Your task to perform on an android device: Search for "logitech g pro" on bestbuy, select the first entry, and add it to the cart. Image 0: 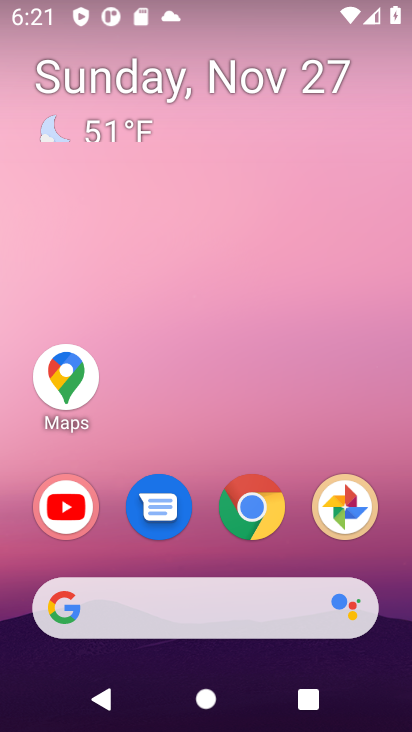
Step 0: click (254, 509)
Your task to perform on an android device: Search for "logitech g pro" on bestbuy, select the first entry, and add it to the cart. Image 1: 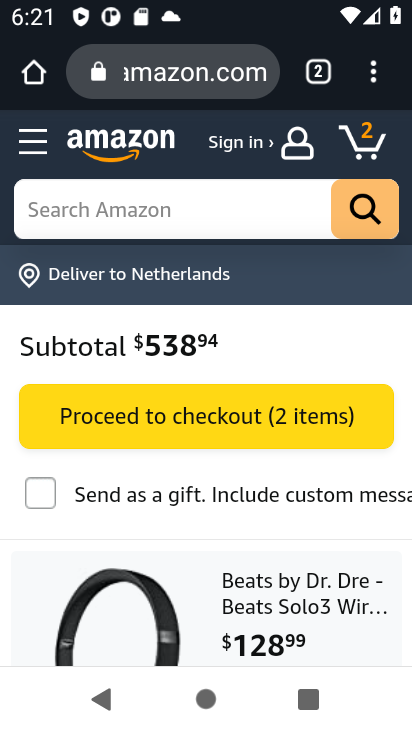
Step 1: click (203, 73)
Your task to perform on an android device: Search for "logitech g pro" on bestbuy, select the first entry, and add it to the cart. Image 2: 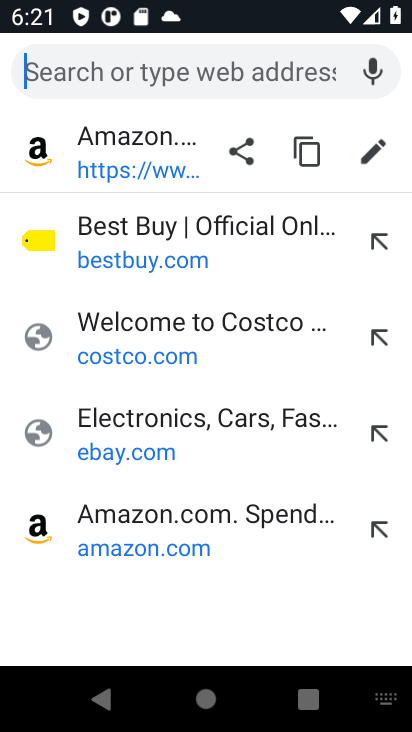
Step 2: type "bestbuy"
Your task to perform on an android device: Search for "logitech g pro" on bestbuy, select the first entry, and add it to the cart. Image 3: 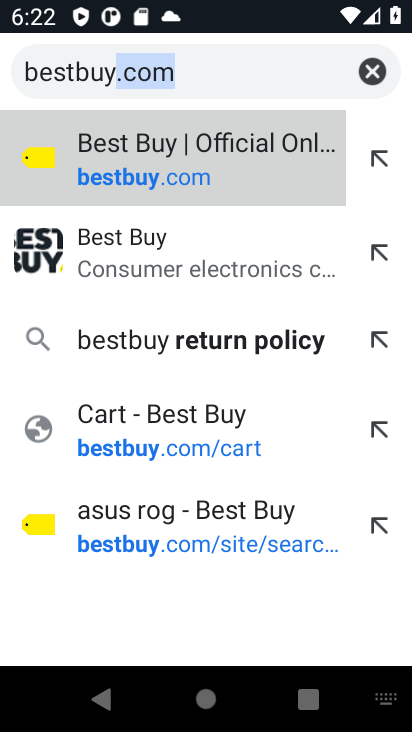
Step 3: click (142, 195)
Your task to perform on an android device: Search for "logitech g pro" on bestbuy, select the first entry, and add it to the cart. Image 4: 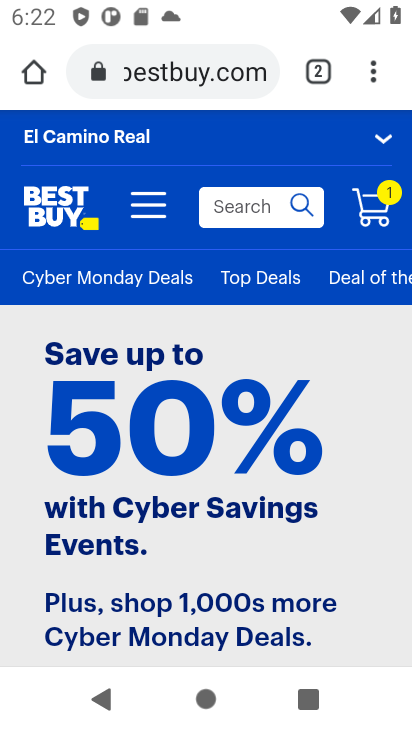
Step 4: click (237, 207)
Your task to perform on an android device: Search for "logitech g pro" on bestbuy, select the first entry, and add it to the cart. Image 5: 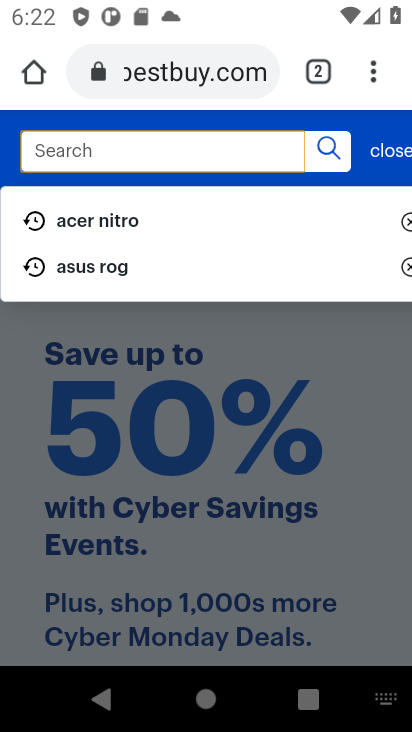
Step 5: type "logitech g pro"
Your task to perform on an android device: Search for "logitech g pro" on bestbuy, select the first entry, and add it to the cart. Image 6: 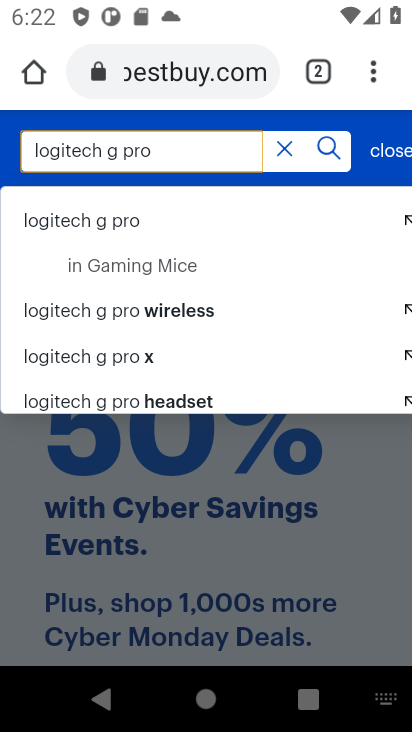
Step 6: click (324, 151)
Your task to perform on an android device: Search for "logitech g pro" on bestbuy, select the first entry, and add it to the cart. Image 7: 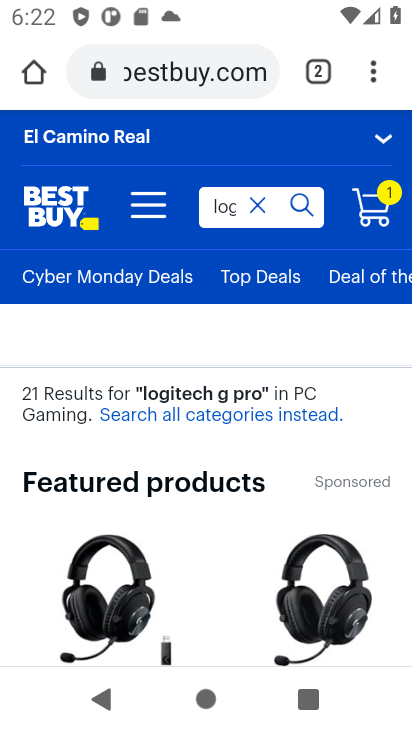
Step 7: drag from (207, 524) to (206, 344)
Your task to perform on an android device: Search for "logitech g pro" on bestbuy, select the first entry, and add it to the cart. Image 8: 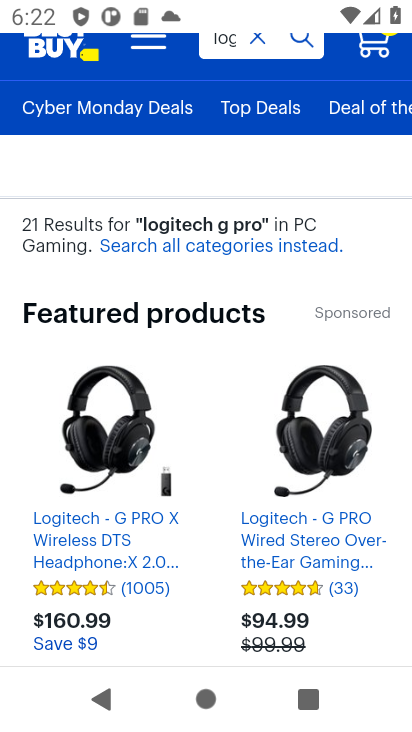
Step 8: click (108, 459)
Your task to perform on an android device: Search for "logitech g pro" on bestbuy, select the first entry, and add it to the cart. Image 9: 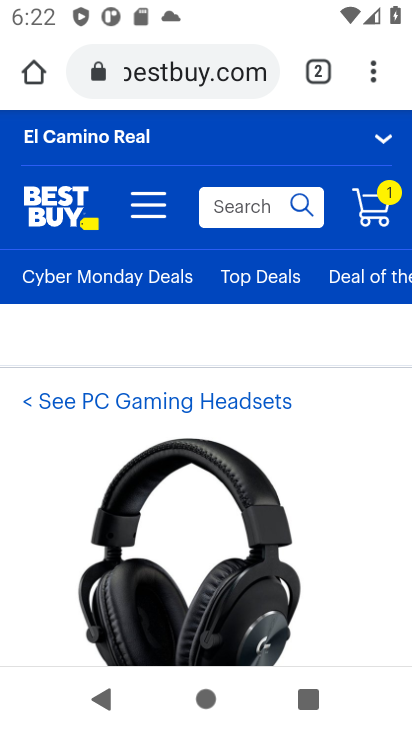
Step 9: drag from (248, 552) to (251, 312)
Your task to perform on an android device: Search for "logitech g pro" on bestbuy, select the first entry, and add it to the cart. Image 10: 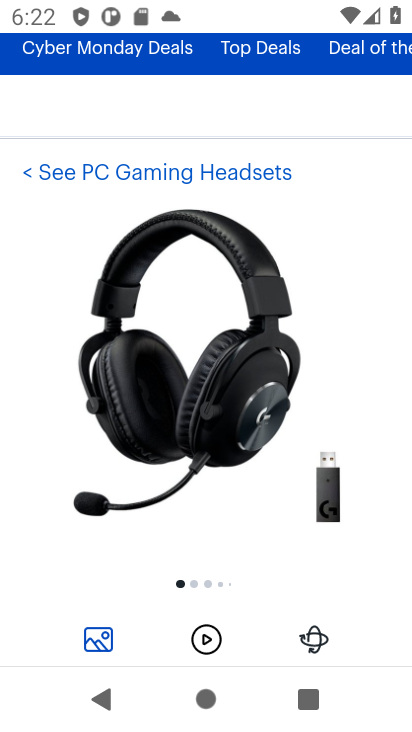
Step 10: drag from (245, 553) to (255, 229)
Your task to perform on an android device: Search for "logitech g pro" on bestbuy, select the first entry, and add it to the cart. Image 11: 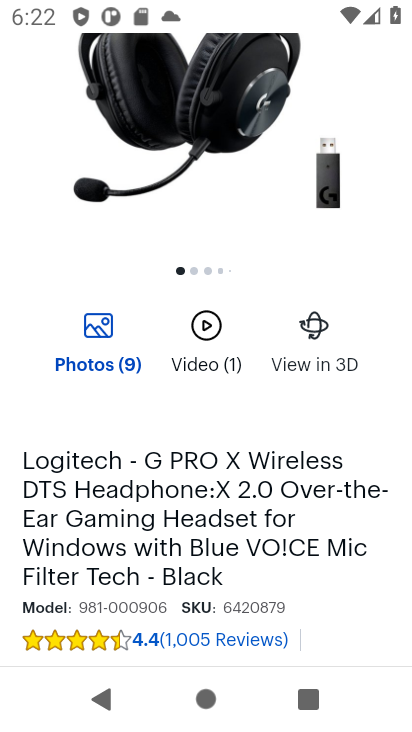
Step 11: drag from (242, 582) to (235, 304)
Your task to perform on an android device: Search for "logitech g pro" on bestbuy, select the first entry, and add it to the cart. Image 12: 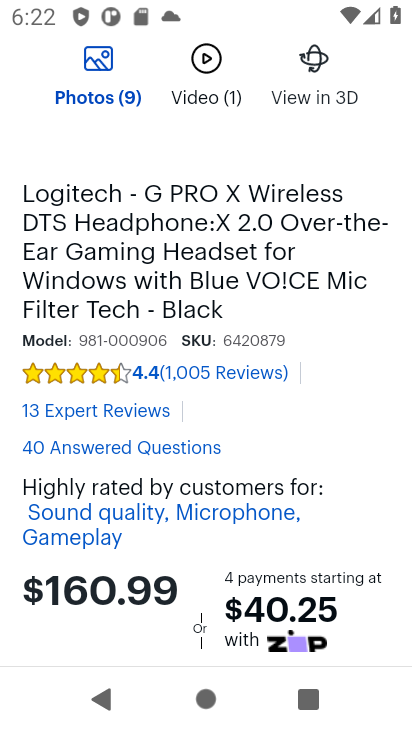
Step 12: drag from (200, 572) to (215, 243)
Your task to perform on an android device: Search for "logitech g pro" on bestbuy, select the first entry, and add it to the cart. Image 13: 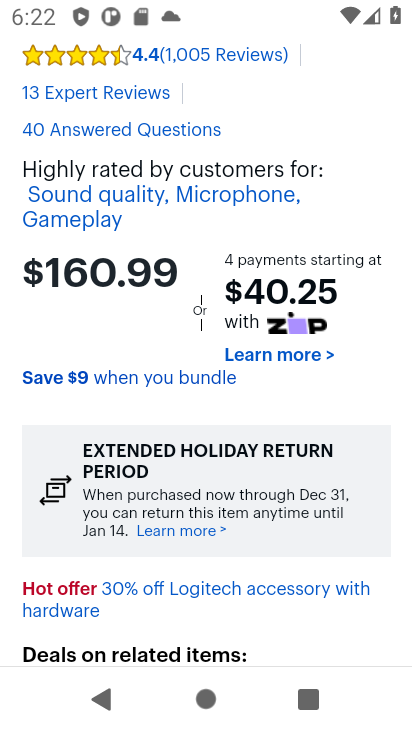
Step 13: drag from (182, 597) to (199, 252)
Your task to perform on an android device: Search for "logitech g pro" on bestbuy, select the first entry, and add it to the cart. Image 14: 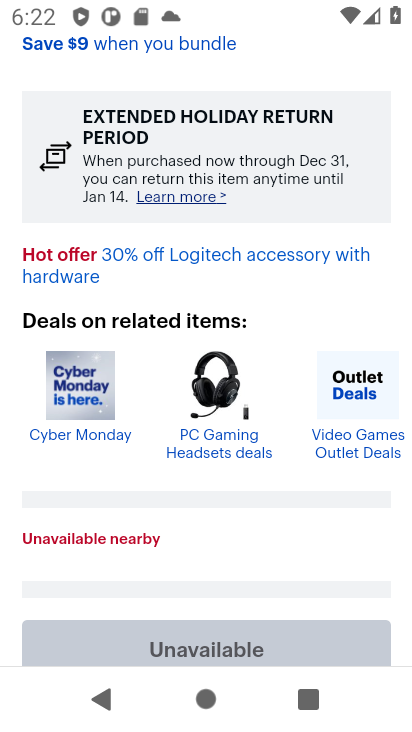
Step 14: drag from (215, 552) to (207, 623)
Your task to perform on an android device: Search for "logitech g pro" on bestbuy, select the first entry, and add it to the cart. Image 15: 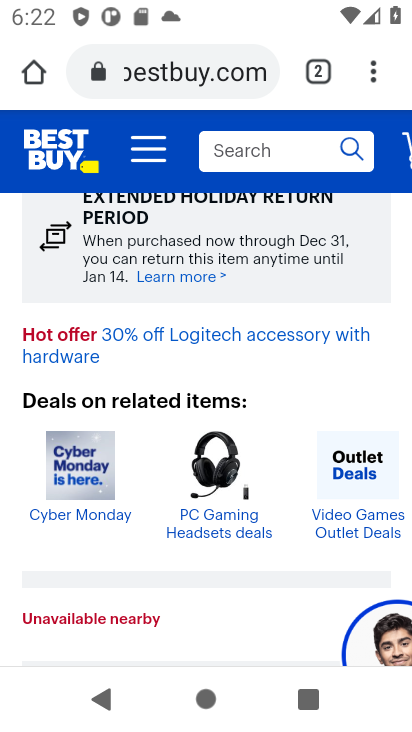
Step 15: press back button
Your task to perform on an android device: Search for "logitech g pro" on bestbuy, select the first entry, and add it to the cart. Image 16: 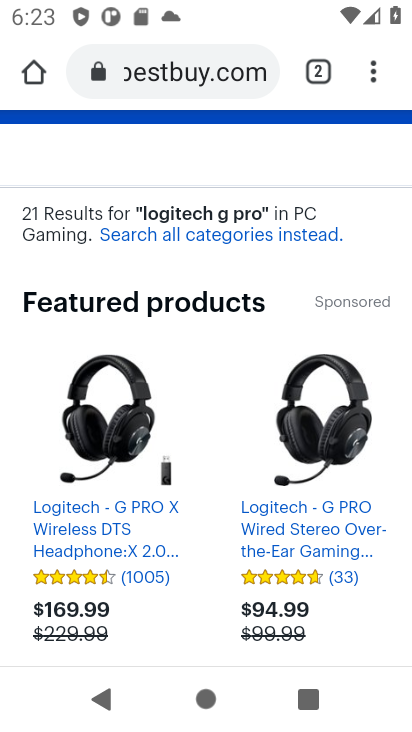
Step 16: click (317, 454)
Your task to perform on an android device: Search for "logitech g pro" on bestbuy, select the first entry, and add it to the cart. Image 17: 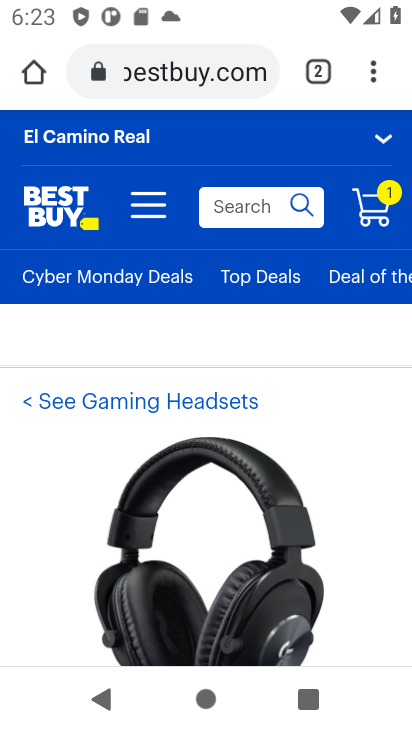
Step 17: drag from (248, 559) to (254, 254)
Your task to perform on an android device: Search for "logitech g pro" on bestbuy, select the first entry, and add it to the cart. Image 18: 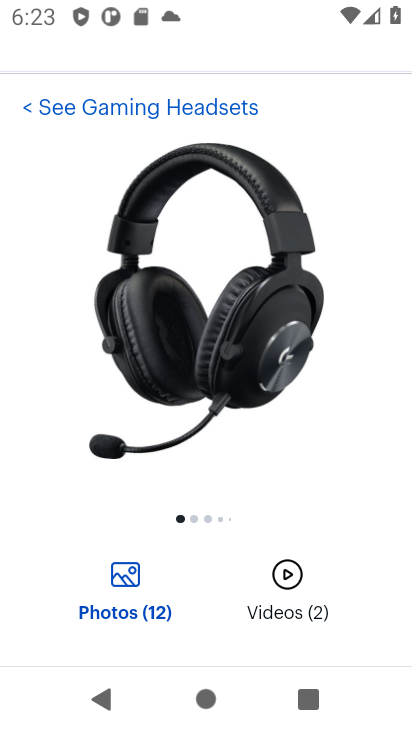
Step 18: drag from (244, 488) to (269, 167)
Your task to perform on an android device: Search for "logitech g pro" on bestbuy, select the first entry, and add it to the cart. Image 19: 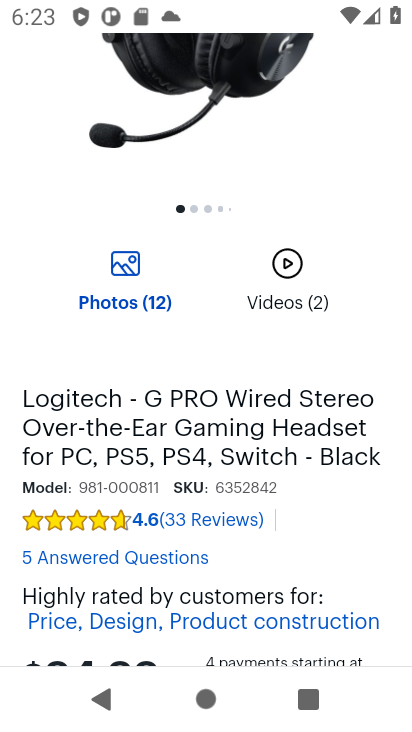
Step 19: drag from (269, 493) to (276, 105)
Your task to perform on an android device: Search for "logitech g pro" on bestbuy, select the first entry, and add it to the cart. Image 20: 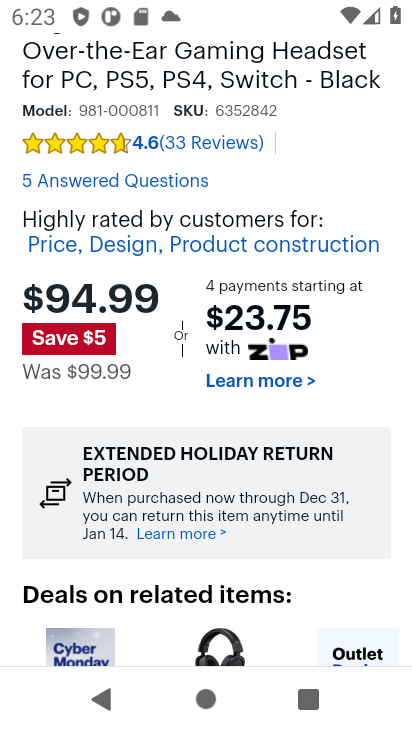
Step 20: drag from (200, 559) to (201, 186)
Your task to perform on an android device: Search for "logitech g pro" on bestbuy, select the first entry, and add it to the cart. Image 21: 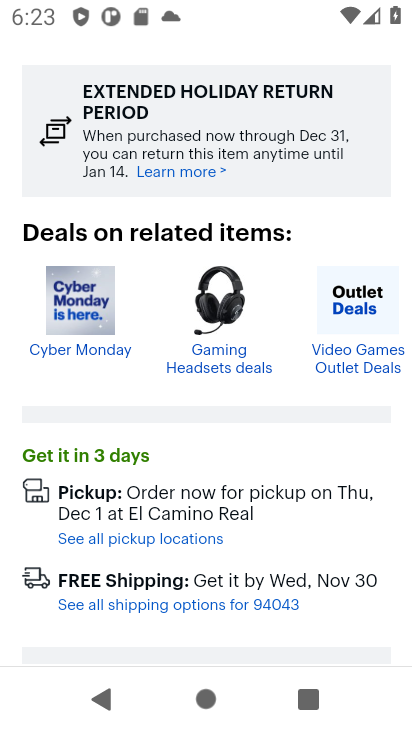
Step 21: drag from (201, 602) to (202, 266)
Your task to perform on an android device: Search for "logitech g pro" on bestbuy, select the first entry, and add it to the cart. Image 22: 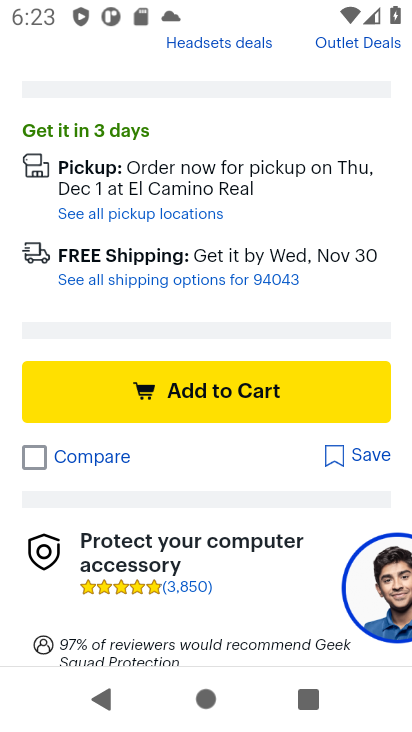
Step 22: click (236, 392)
Your task to perform on an android device: Search for "logitech g pro" on bestbuy, select the first entry, and add it to the cart. Image 23: 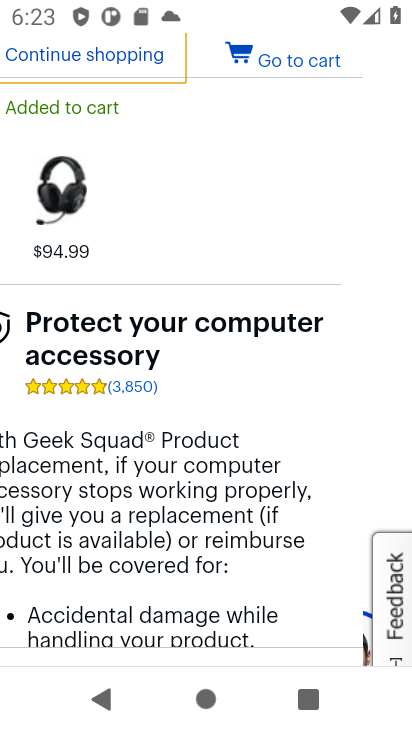
Step 23: click (308, 56)
Your task to perform on an android device: Search for "logitech g pro" on bestbuy, select the first entry, and add it to the cart. Image 24: 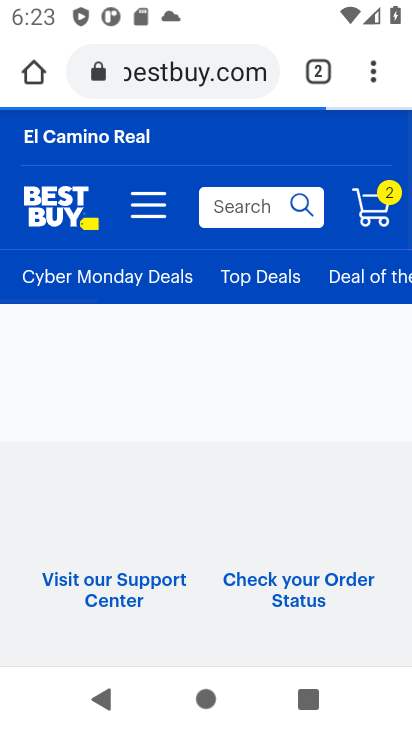
Step 24: task complete